Your task to perform on an android device: turn off location Image 0: 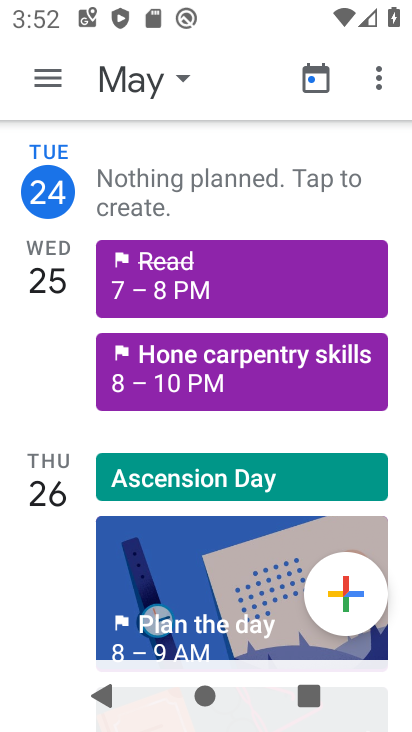
Step 0: press home button
Your task to perform on an android device: turn off location Image 1: 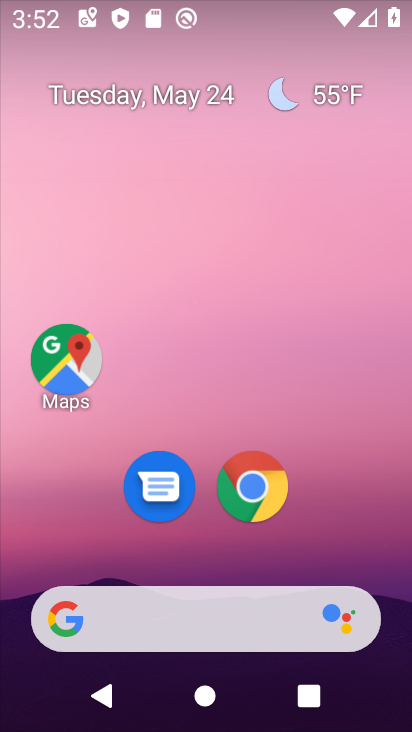
Step 1: drag from (345, 474) to (308, 212)
Your task to perform on an android device: turn off location Image 2: 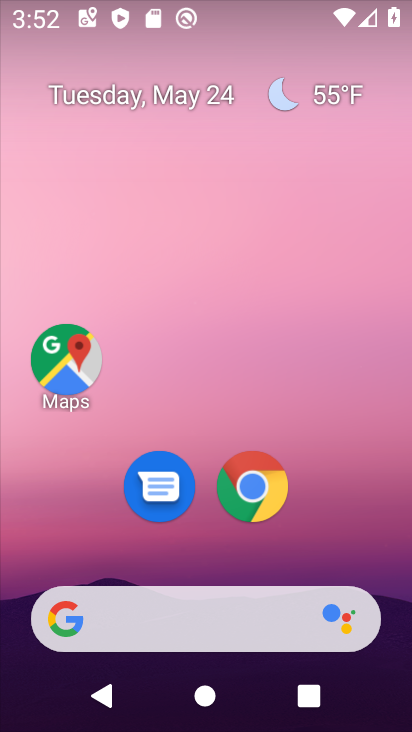
Step 2: drag from (387, 468) to (307, 196)
Your task to perform on an android device: turn off location Image 3: 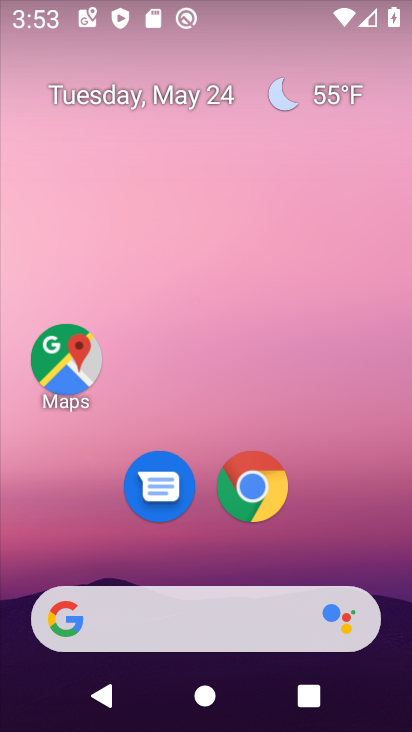
Step 3: drag from (289, 486) to (276, 211)
Your task to perform on an android device: turn off location Image 4: 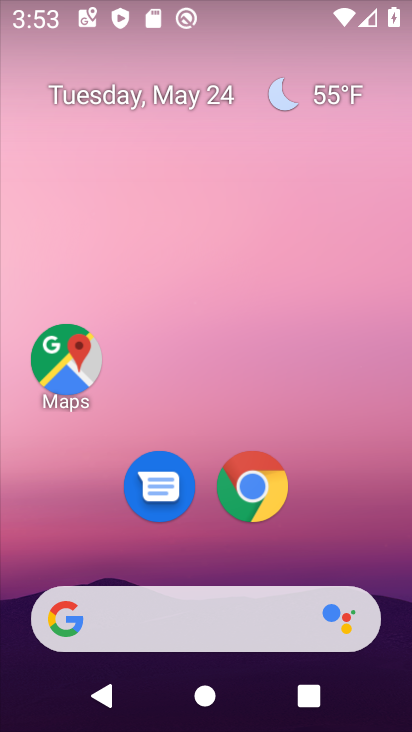
Step 4: drag from (340, 567) to (302, 227)
Your task to perform on an android device: turn off location Image 5: 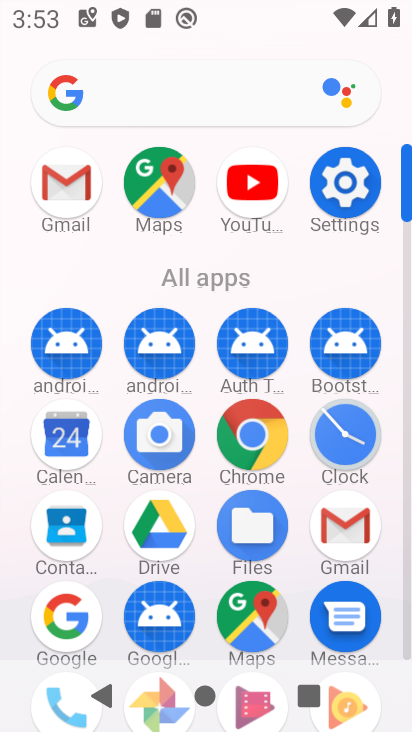
Step 5: click (332, 180)
Your task to perform on an android device: turn off location Image 6: 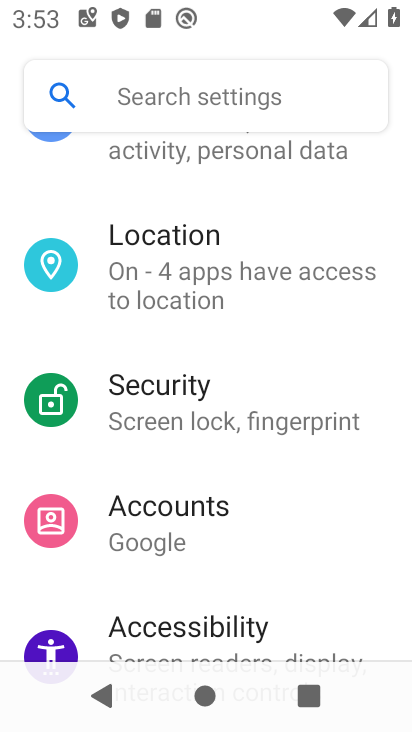
Step 6: click (184, 280)
Your task to perform on an android device: turn off location Image 7: 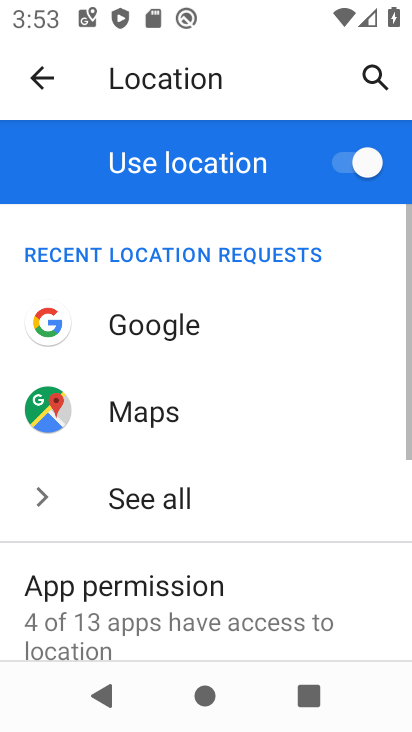
Step 7: click (351, 154)
Your task to perform on an android device: turn off location Image 8: 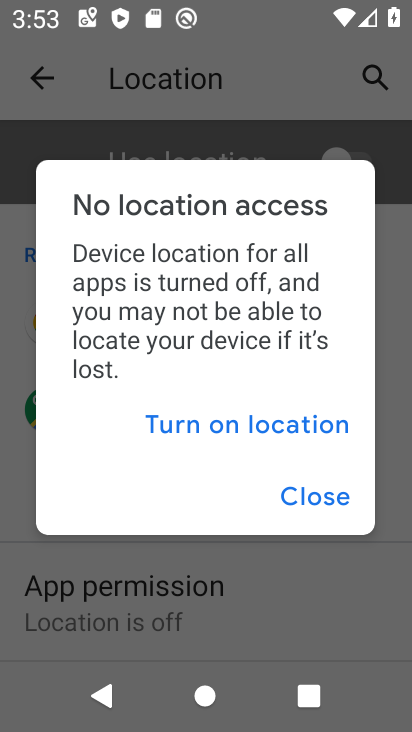
Step 8: task complete